Your task to perform on an android device: What is the recent news? Image 0: 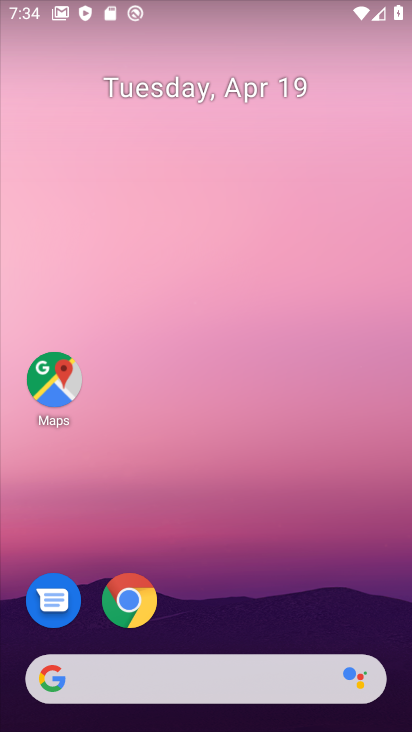
Step 0: drag from (240, 627) to (308, 78)
Your task to perform on an android device: What is the recent news? Image 1: 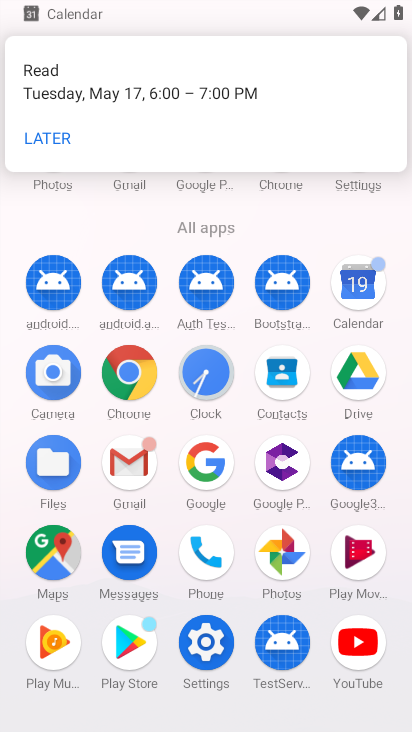
Step 1: click (27, 135)
Your task to perform on an android device: What is the recent news? Image 2: 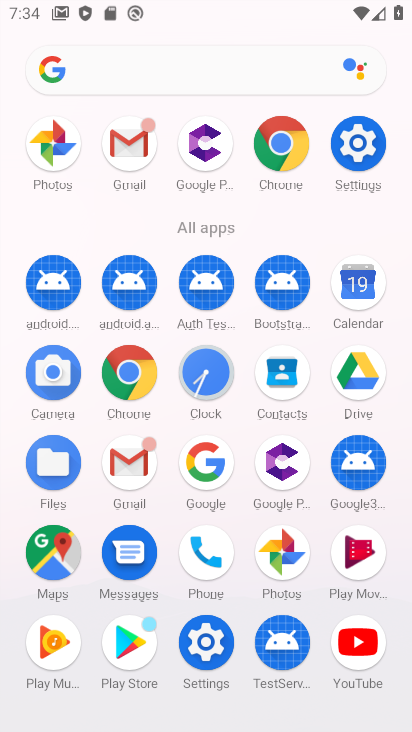
Step 2: click (294, 151)
Your task to perform on an android device: What is the recent news? Image 3: 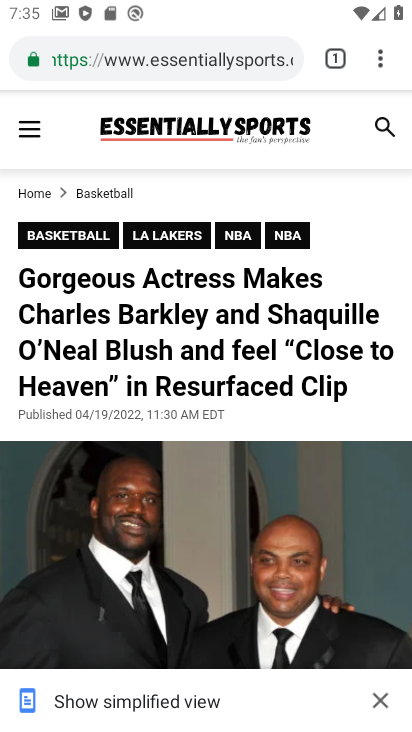
Step 3: task complete